Your task to perform on an android device: uninstall "ColorNote Notepad Notes" Image 0: 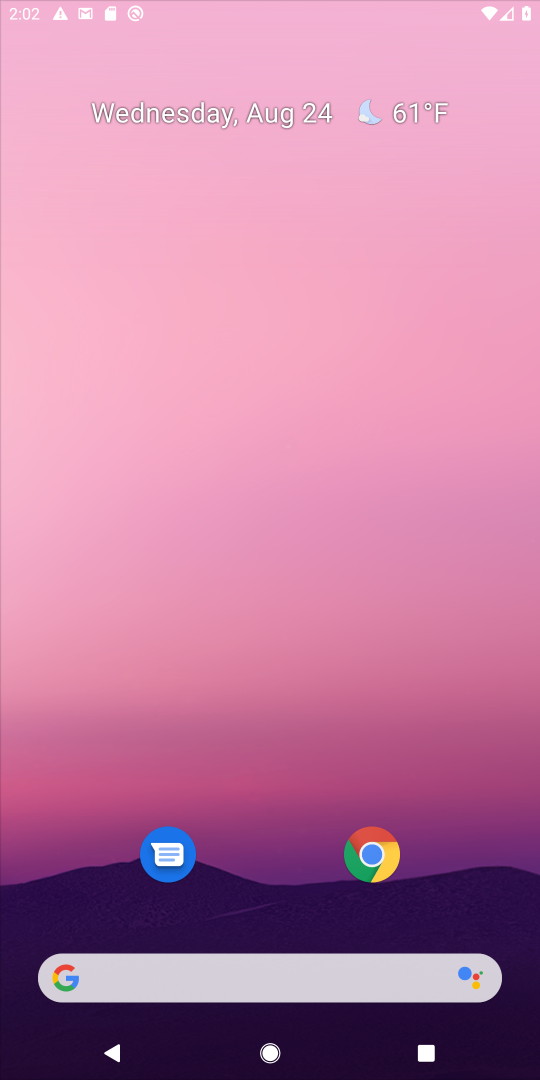
Step 0: press home button
Your task to perform on an android device: uninstall "ColorNote Notepad Notes" Image 1: 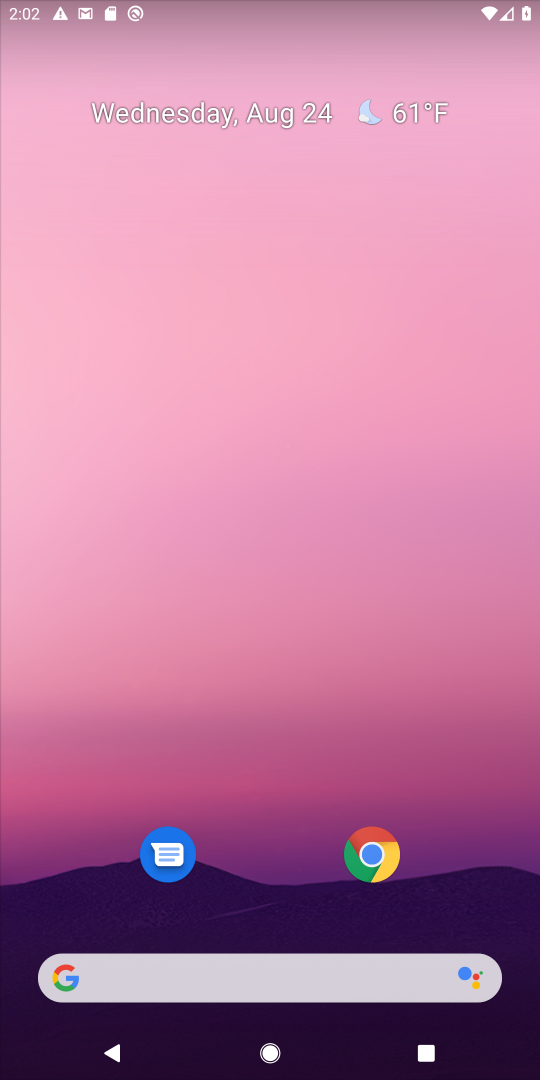
Step 1: drag from (463, 805) to (426, 66)
Your task to perform on an android device: uninstall "ColorNote Notepad Notes" Image 2: 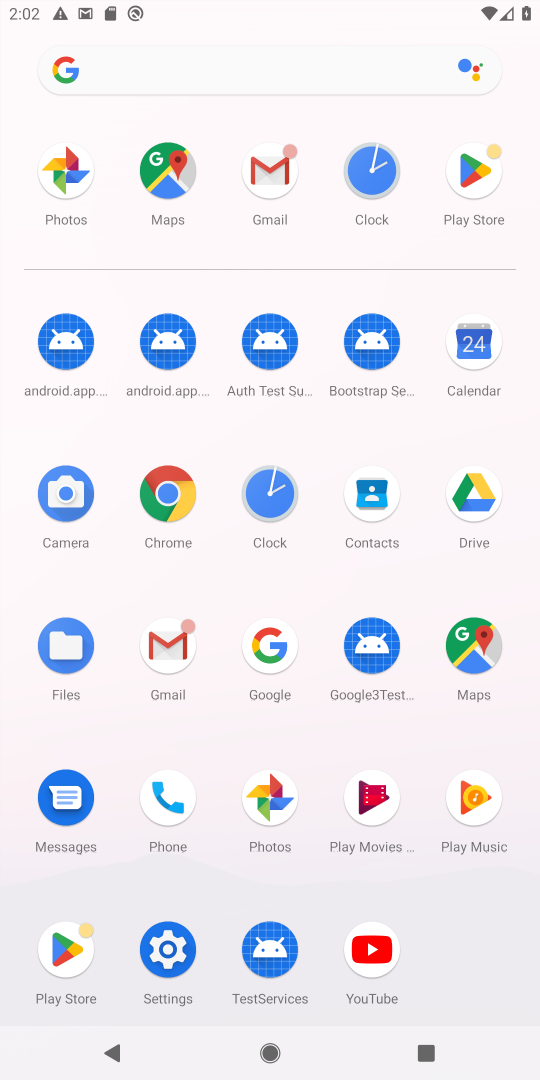
Step 2: click (486, 177)
Your task to perform on an android device: uninstall "ColorNote Notepad Notes" Image 3: 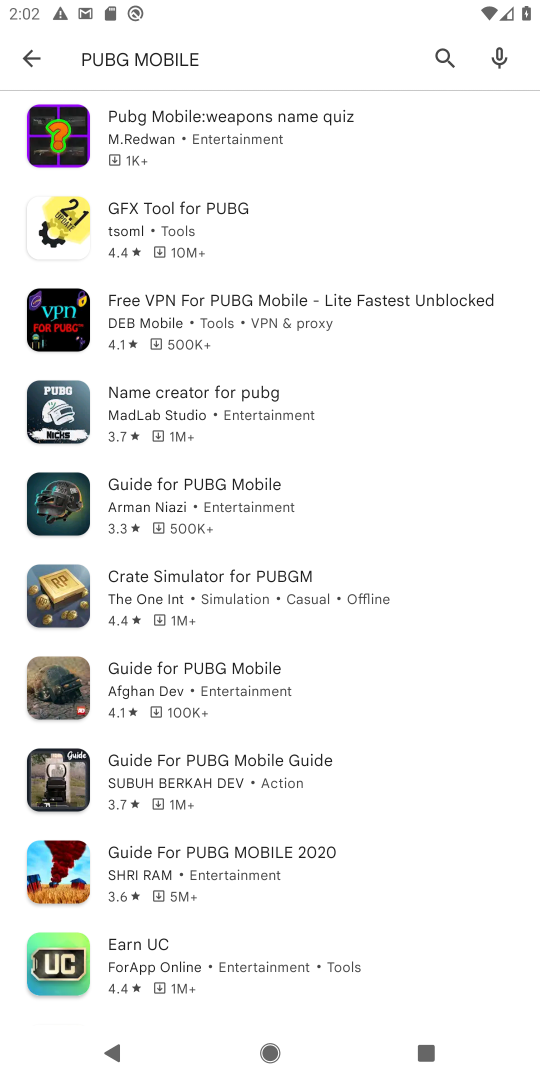
Step 3: press back button
Your task to perform on an android device: uninstall "ColorNote Notepad Notes" Image 4: 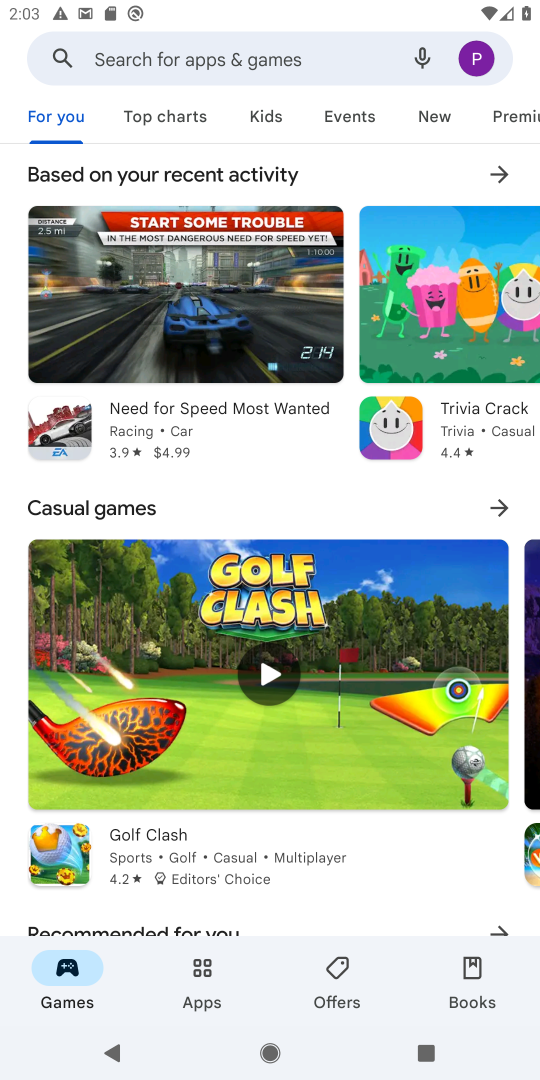
Step 4: click (300, 58)
Your task to perform on an android device: uninstall "ColorNote Notepad Notes" Image 5: 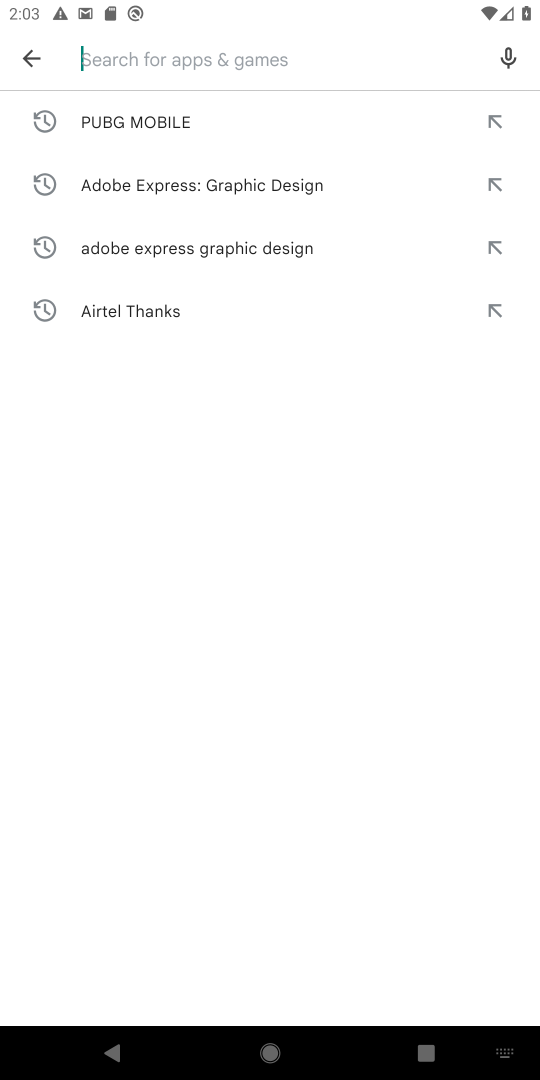
Step 5: type "ColorNote Notepad Notes"
Your task to perform on an android device: uninstall "ColorNote Notepad Notes" Image 6: 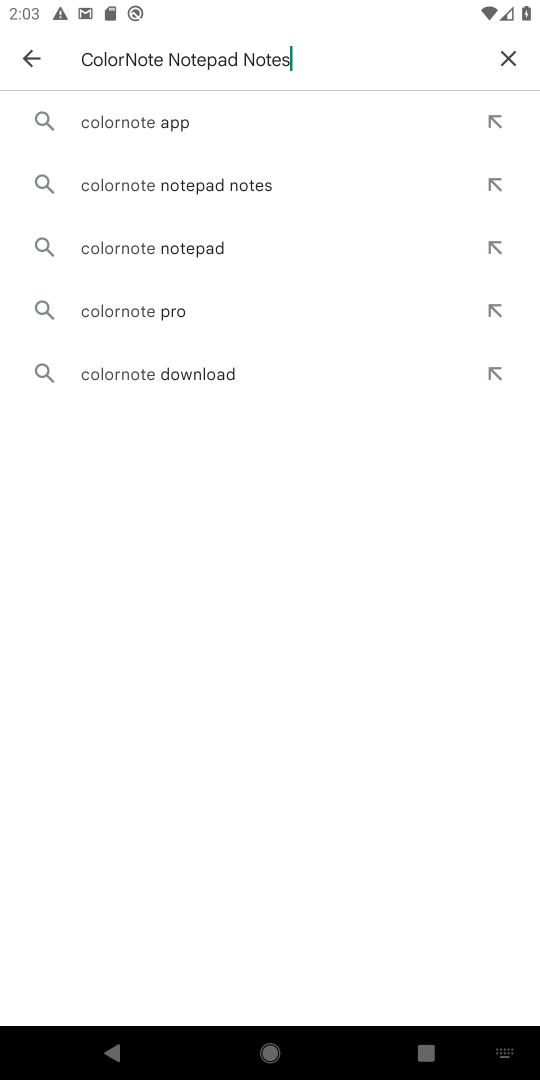
Step 6: press enter
Your task to perform on an android device: uninstall "ColorNote Notepad Notes" Image 7: 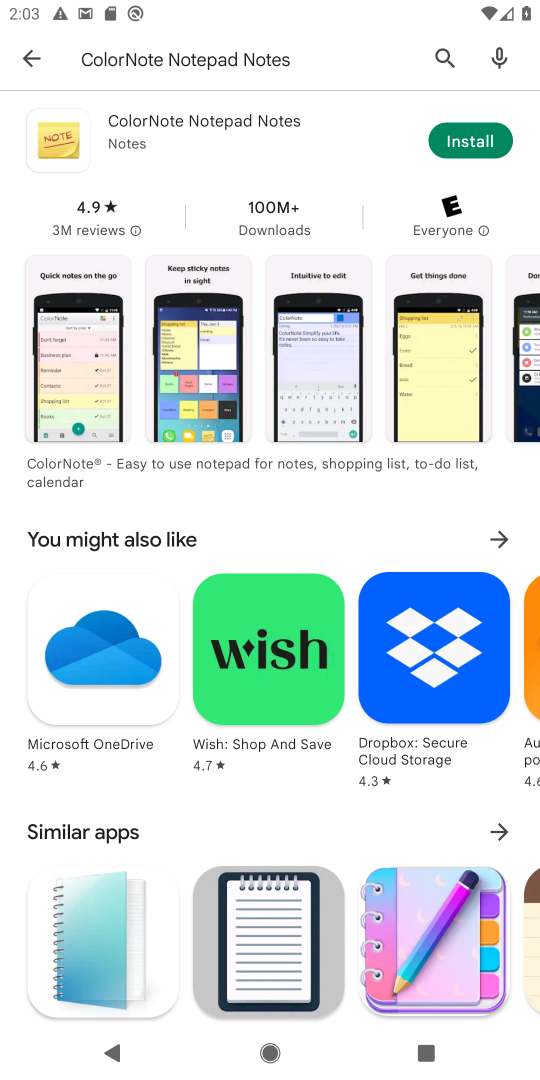
Step 7: task complete